Your task to perform on an android device: Open Chrome and go to the settings page Image 0: 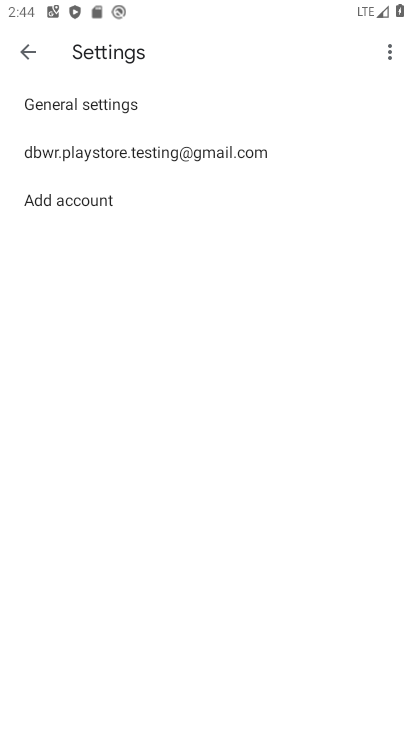
Step 0: press home button
Your task to perform on an android device: Open Chrome and go to the settings page Image 1: 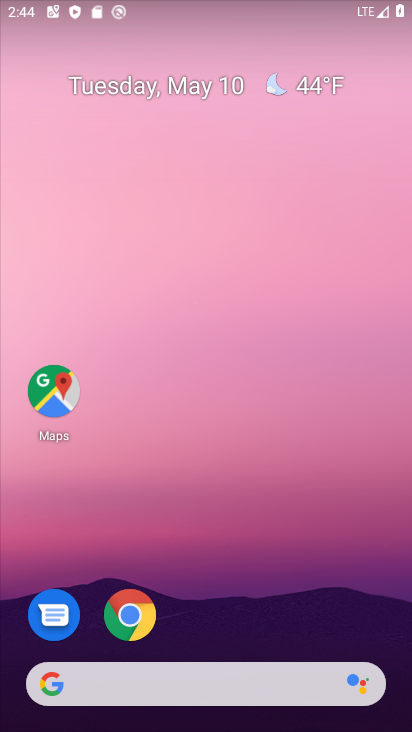
Step 1: click (145, 621)
Your task to perform on an android device: Open Chrome and go to the settings page Image 2: 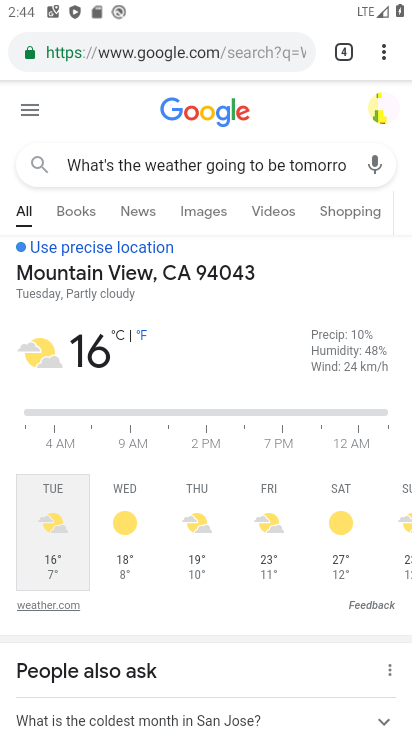
Step 2: click (380, 49)
Your task to perform on an android device: Open Chrome and go to the settings page Image 3: 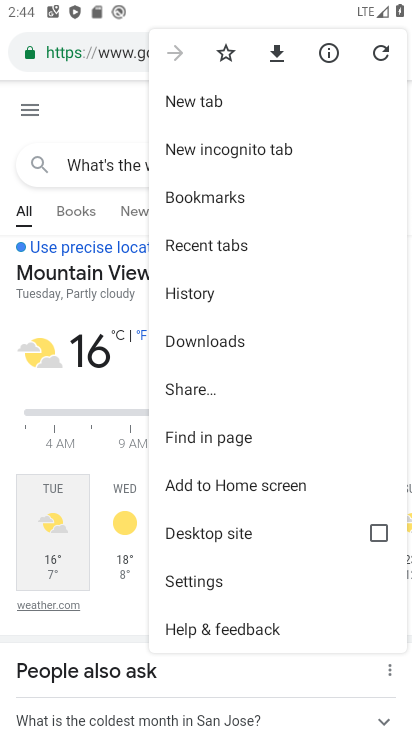
Step 3: click (225, 591)
Your task to perform on an android device: Open Chrome and go to the settings page Image 4: 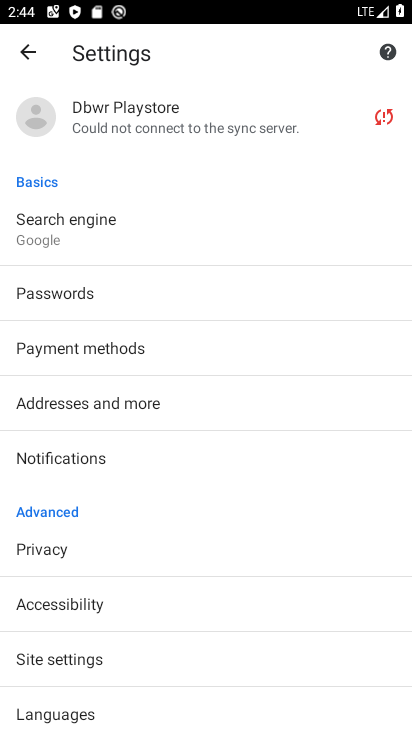
Step 4: task complete